Your task to perform on an android device: turn on sleep mode Image 0: 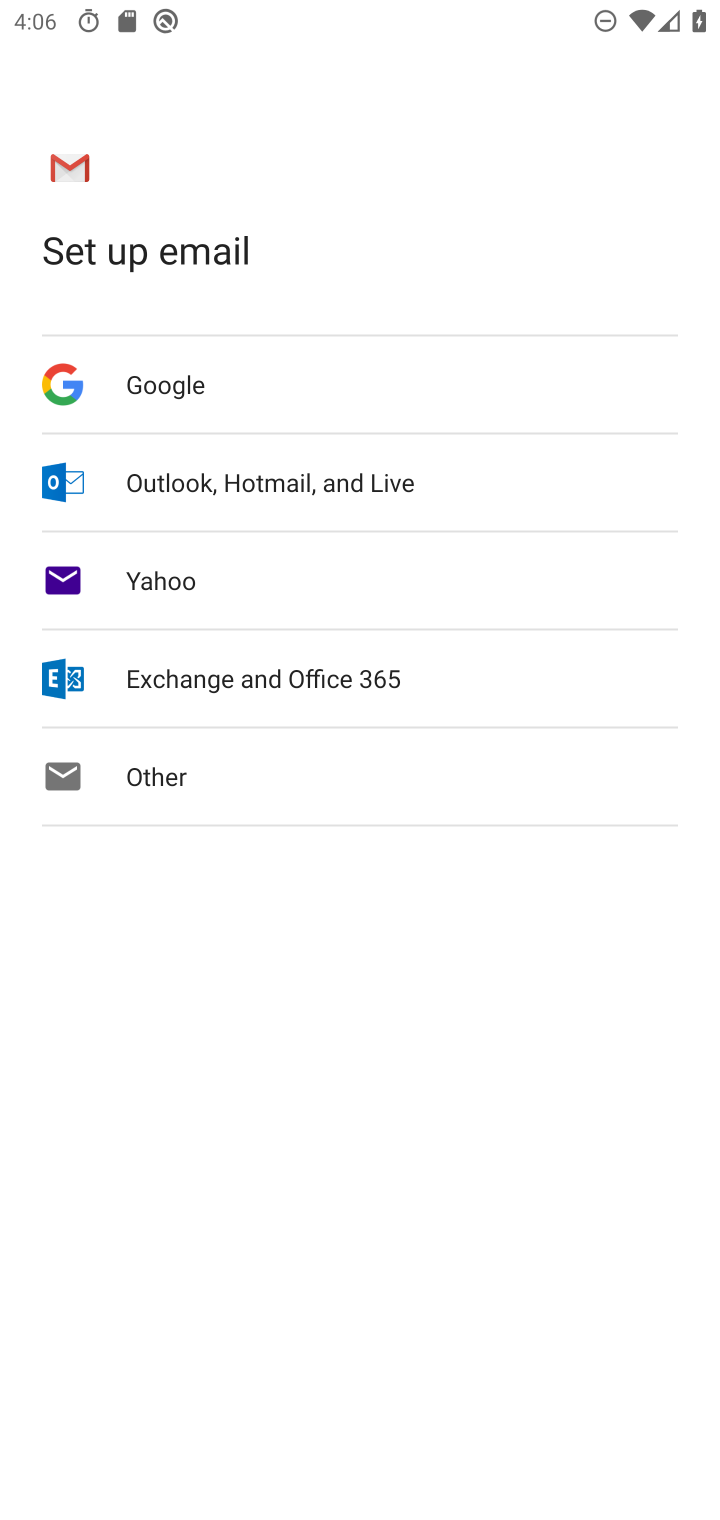
Step 0: press back button
Your task to perform on an android device: turn on sleep mode Image 1: 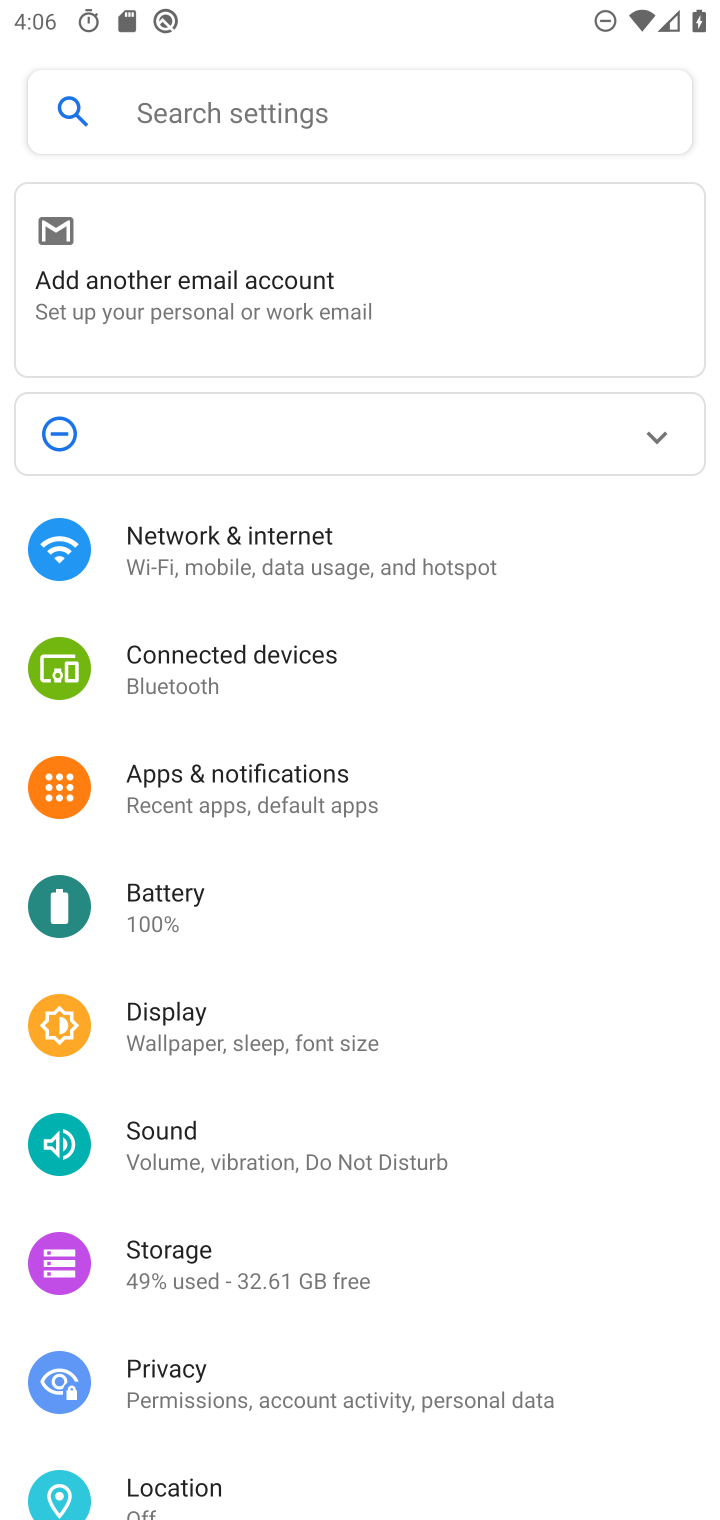
Step 1: press back button
Your task to perform on an android device: turn on sleep mode Image 2: 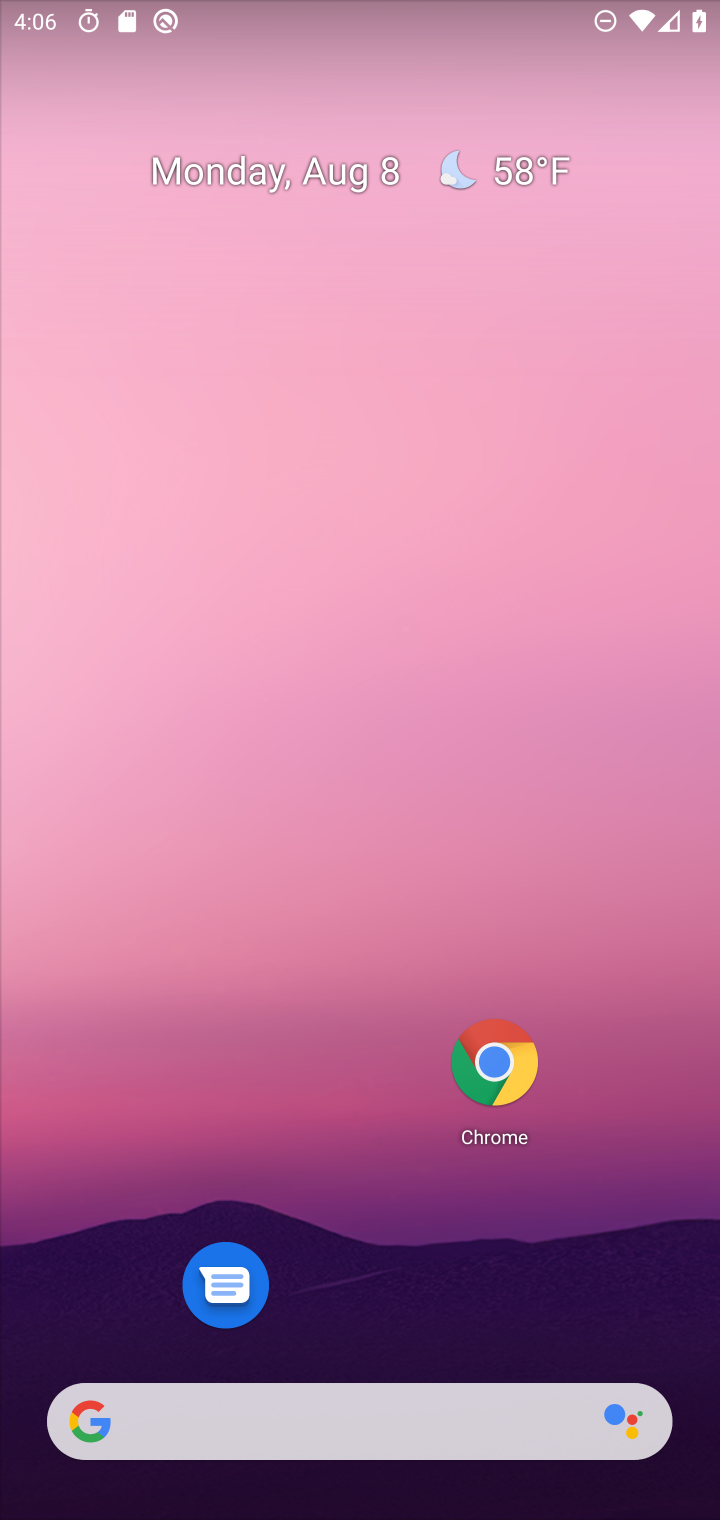
Step 2: click (171, 134)
Your task to perform on an android device: turn on sleep mode Image 3: 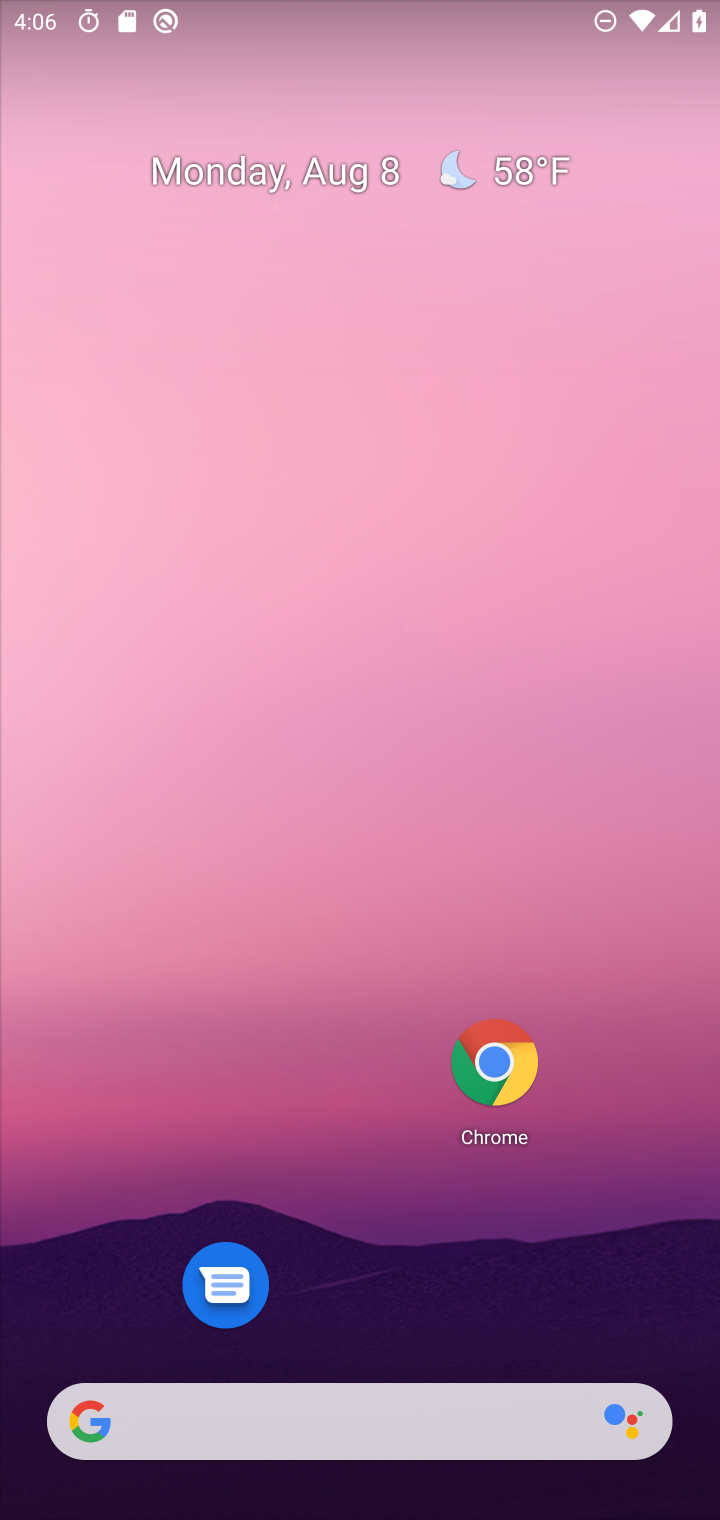
Step 3: drag from (372, 940) to (424, 138)
Your task to perform on an android device: turn on sleep mode Image 4: 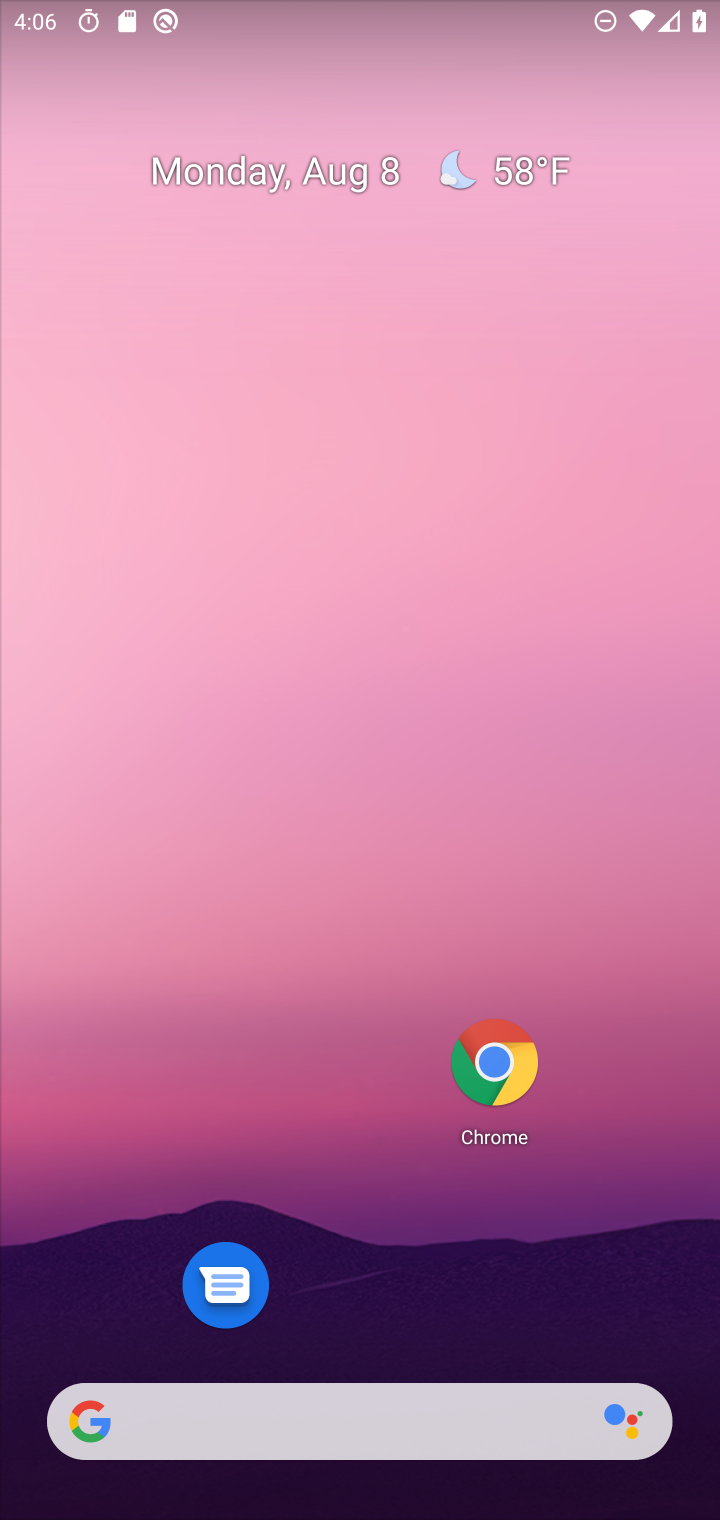
Step 4: drag from (393, 942) to (520, 50)
Your task to perform on an android device: turn on sleep mode Image 5: 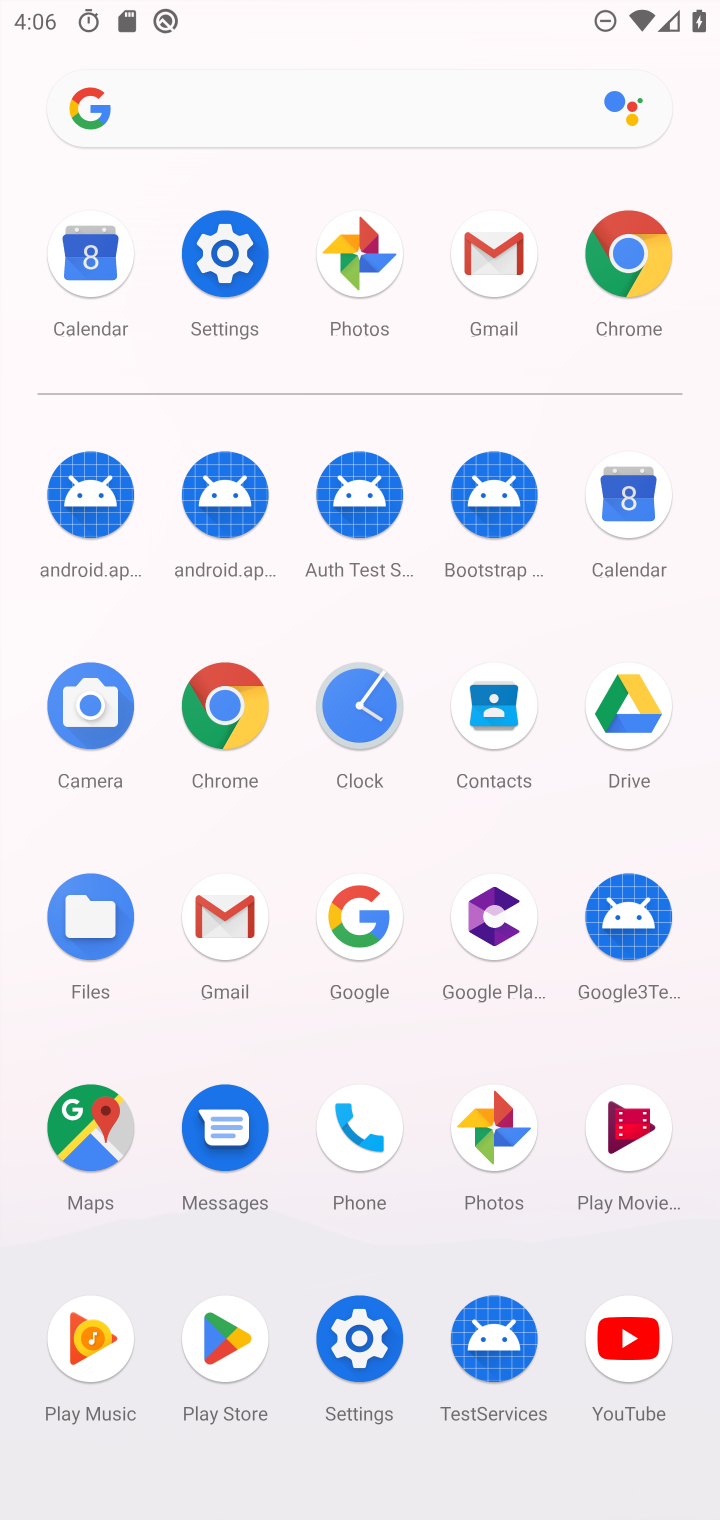
Step 5: click (235, 247)
Your task to perform on an android device: turn on sleep mode Image 6: 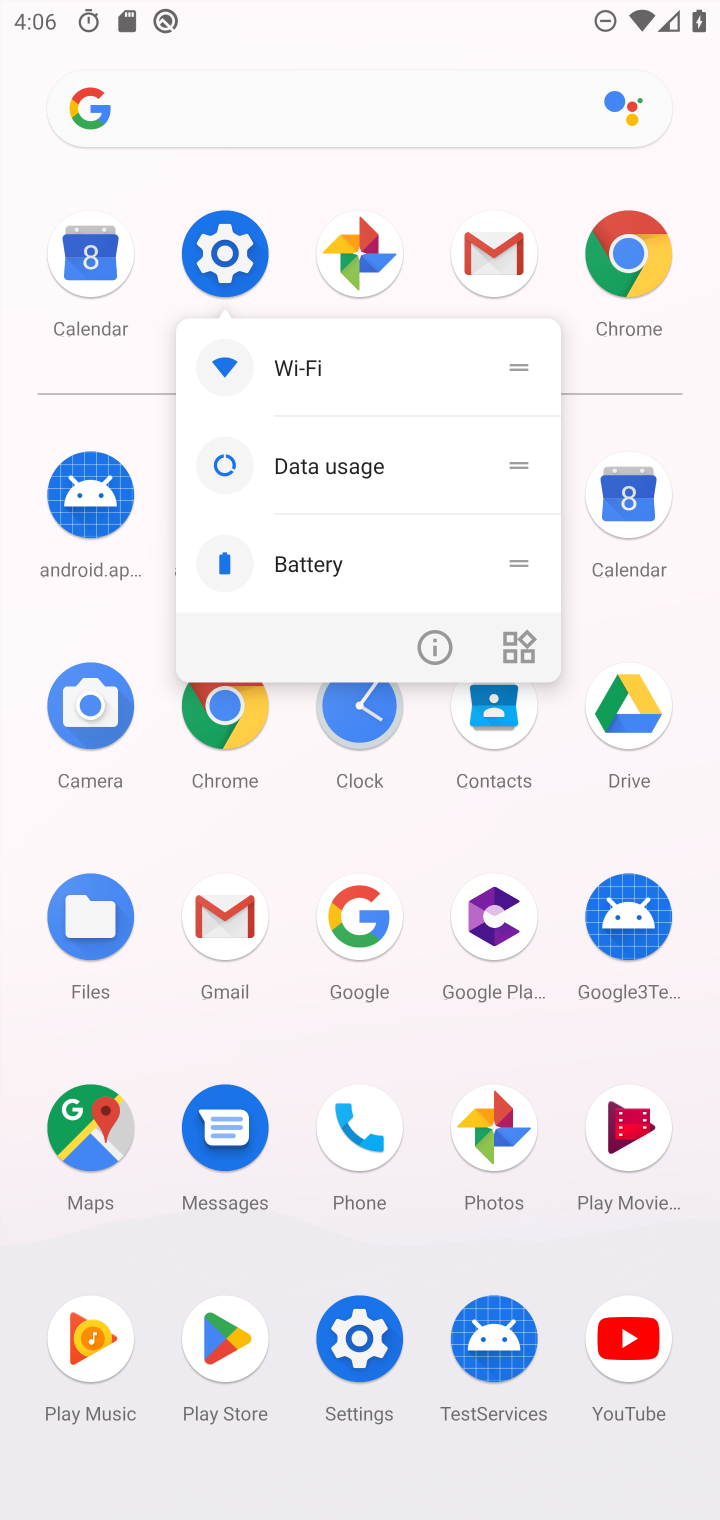
Step 6: click (225, 259)
Your task to perform on an android device: turn on sleep mode Image 7: 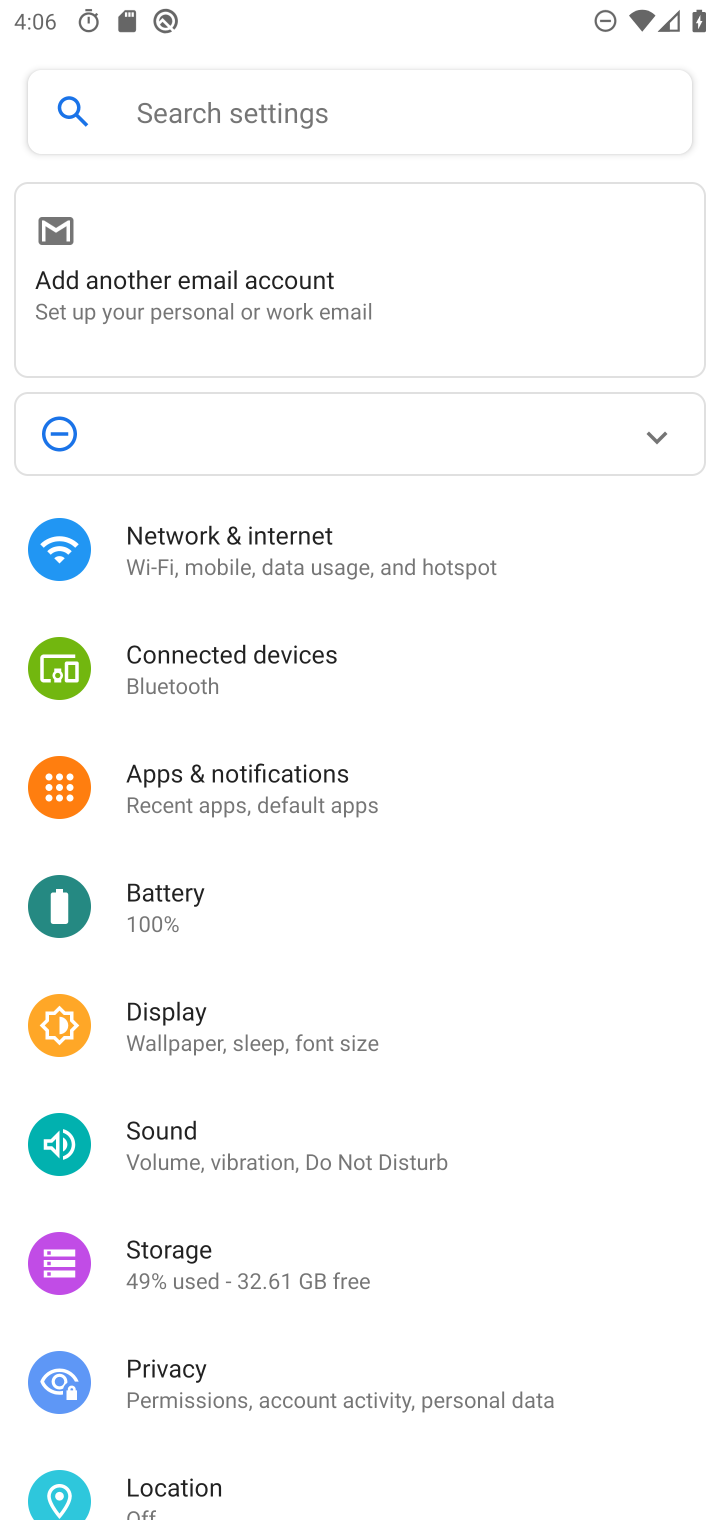
Step 7: click (276, 117)
Your task to perform on an android device: turn on sleep mode Image 8: 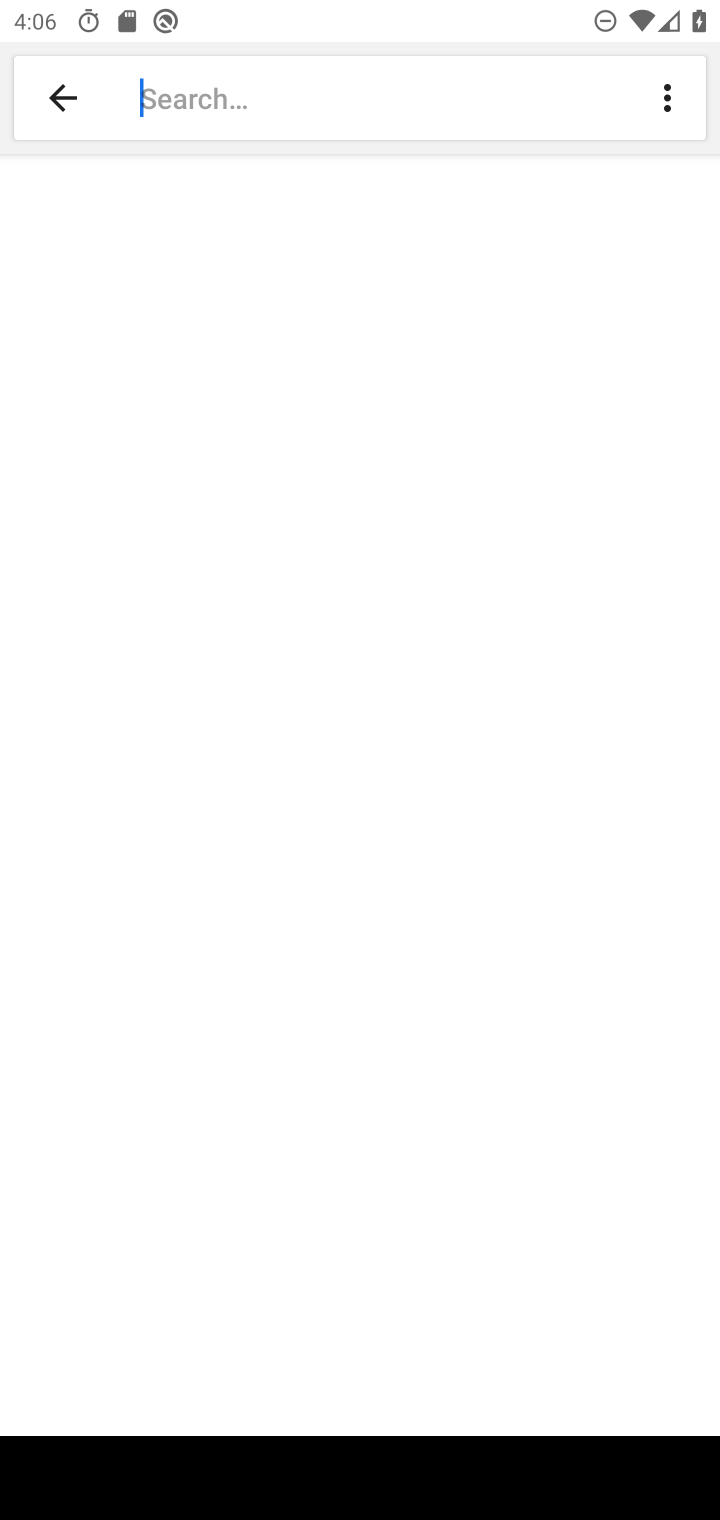
Step 8: type "sleep mode"
Your task to perform on an android device: turn on sleep mode Image 9: 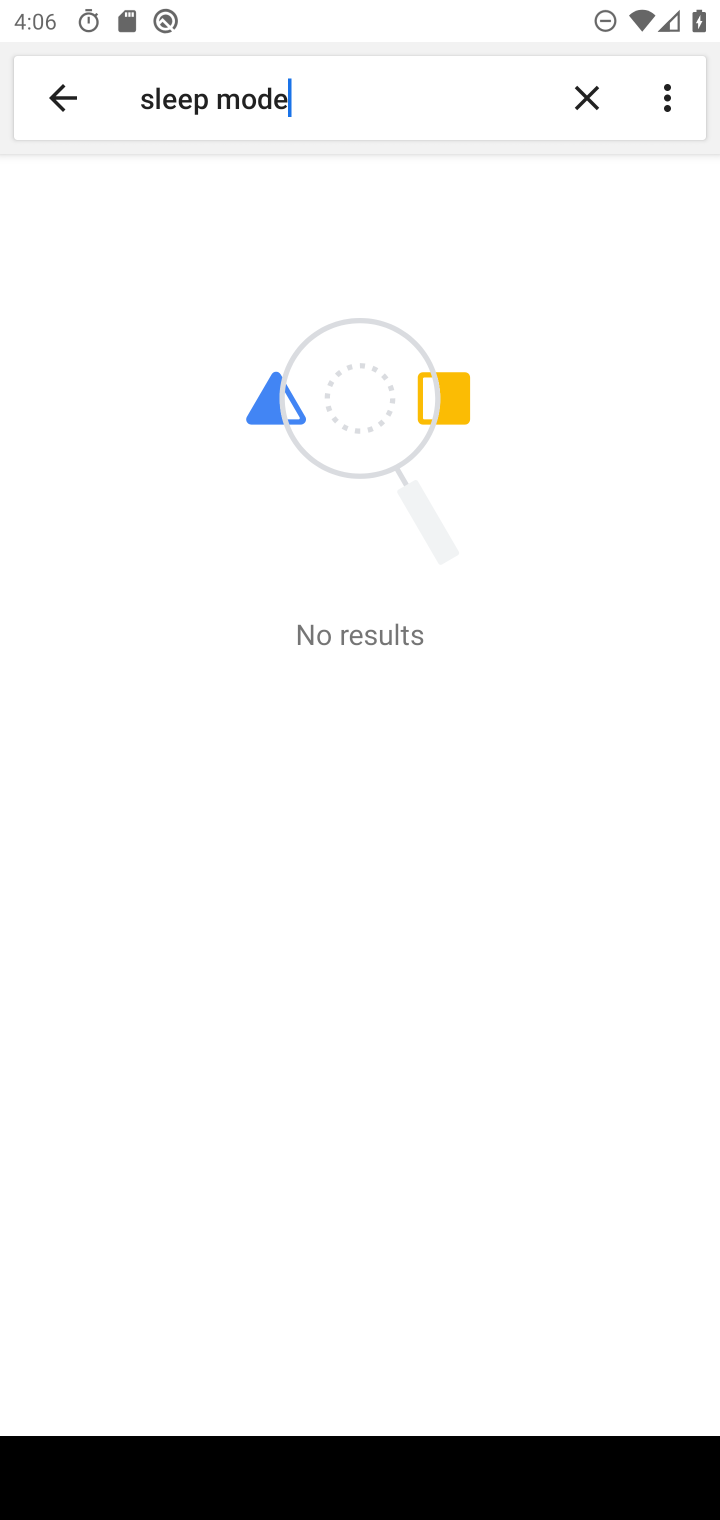
Step 9: task complete